Your task to perform on an android device: Go to Reddit.com Image 0: 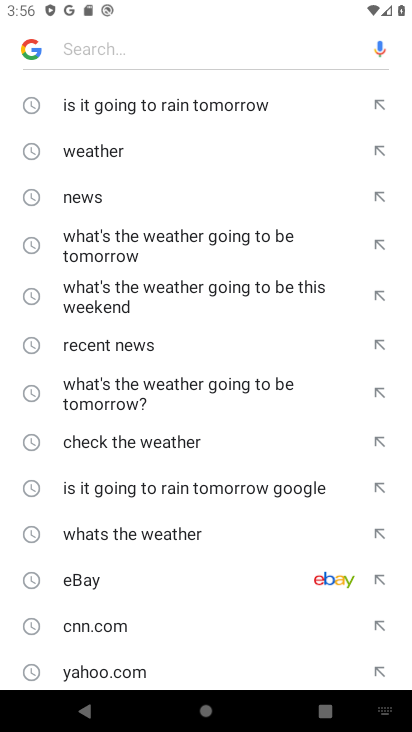
Step 0: type "Reddit.com"
Your task to perform on an android device: Go to Reddit.com Image 1: 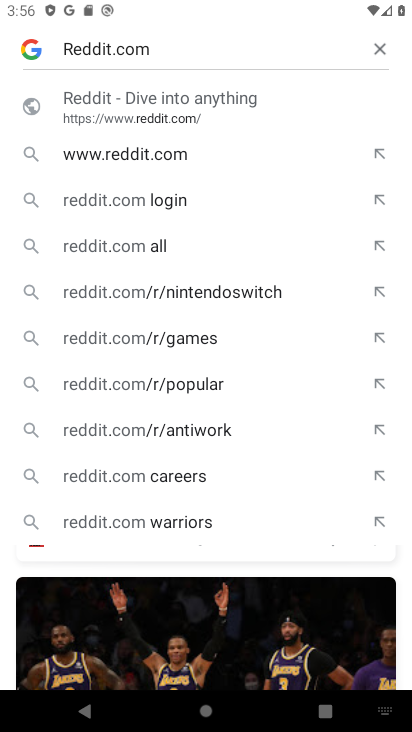
Step 1: click (182, 117)
Your task to perform on an android device: Go to Reddit.com Image 2: 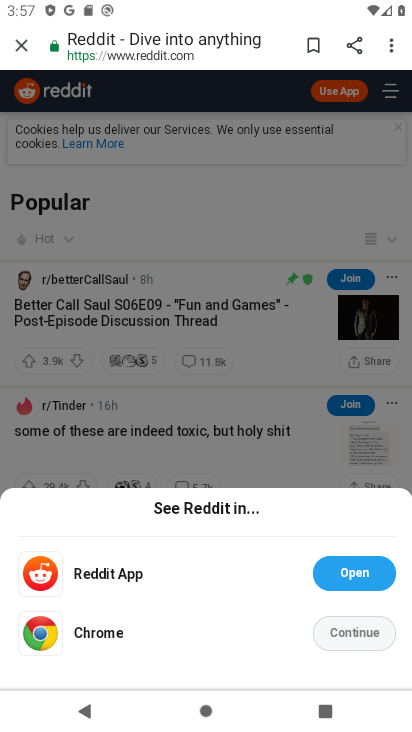
Step 2: click (353, 617)
Your task to perform on an android device: Go to Reddit.com Image 3: 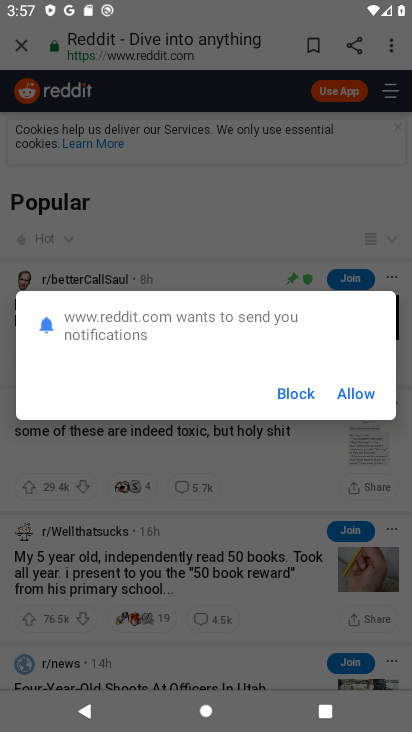
Step 3: click (359, 393)
Your task to perform on an android device: Go to Reddit.com Image 4: 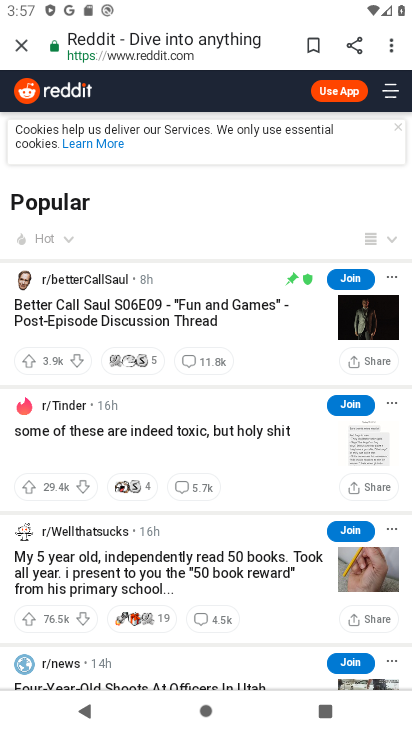
Step 4: task complete